Your task to perform on an android device: What is the recent news? Image 0: 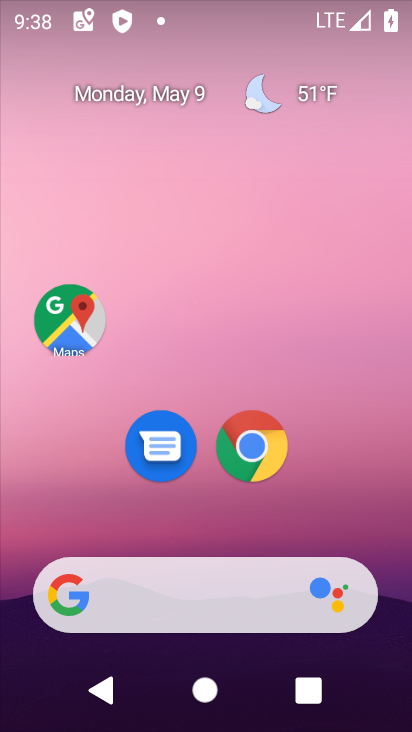
Step 0: click (294, 103)
Your task to perform on an android device: What is the recent news? Image 1: 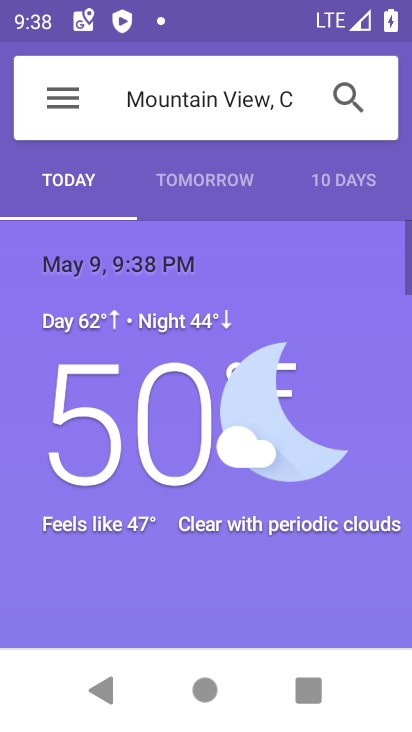
Step 1: press home button
Your task to perform on an android device: What is the recent news? Image 2: 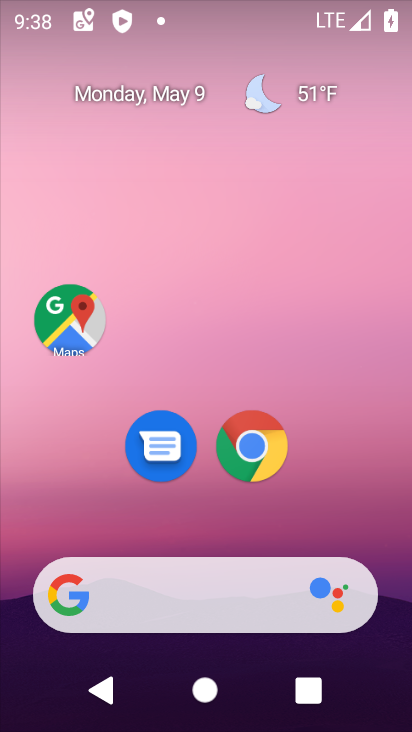
Step 2: click (206, 570)
Your task to perform on an android device: What is the recent news? Image 3: 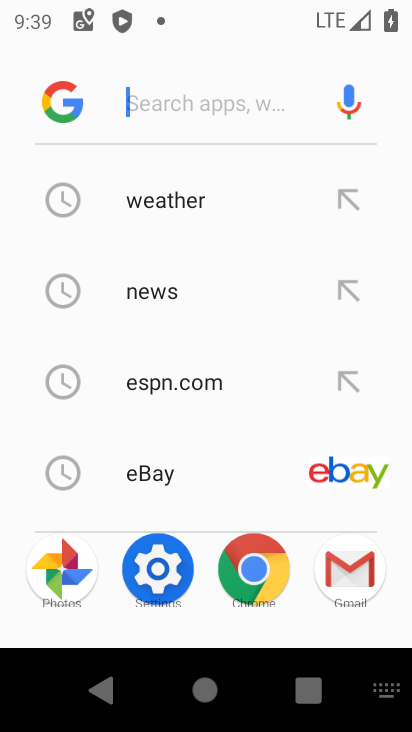
Step 3: type "recent news"
Your task to perform on an android device: What is the recent news? Image 4: 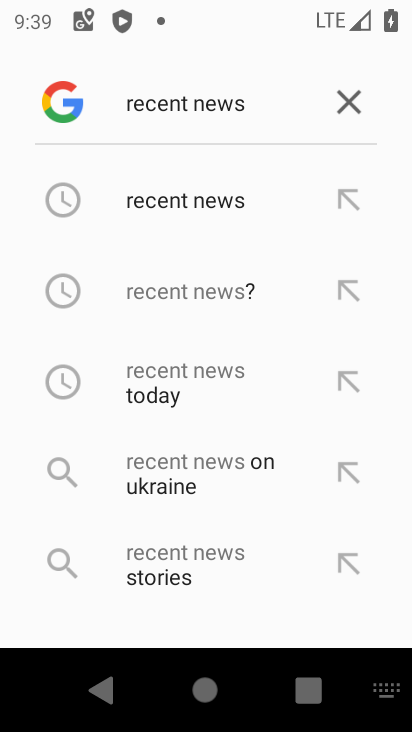
Step 4: click (266, 205)
Your task to perform on an android device: What is the recent news? Image 5: 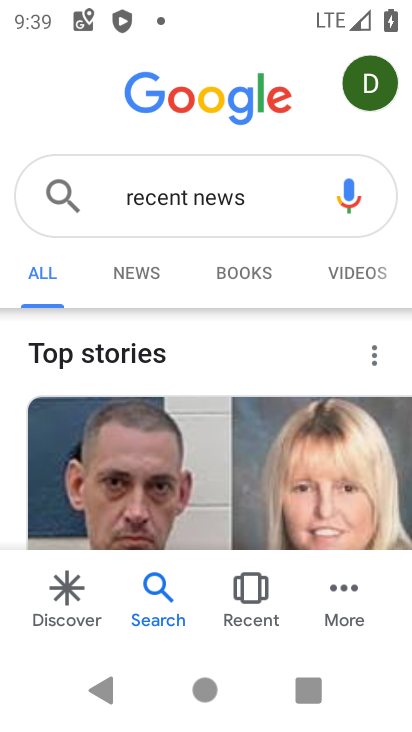
Step 5: click (121, 273)
Your task to perform on an android device: What is the recent news? Image 6: 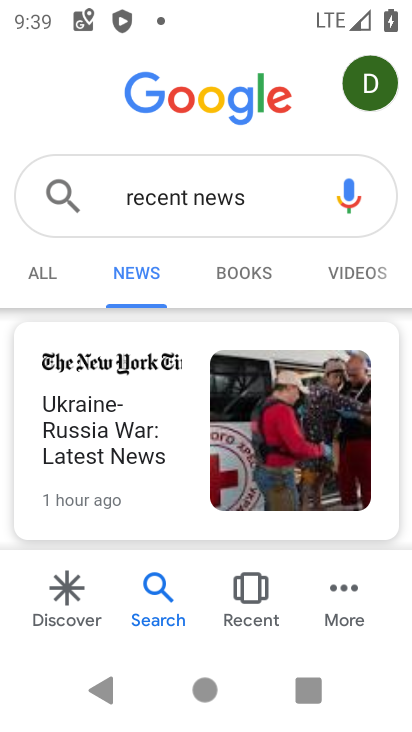
Step 6: task complete